Your task to perform on an android device: change notification settings in the gmail app Image 0: 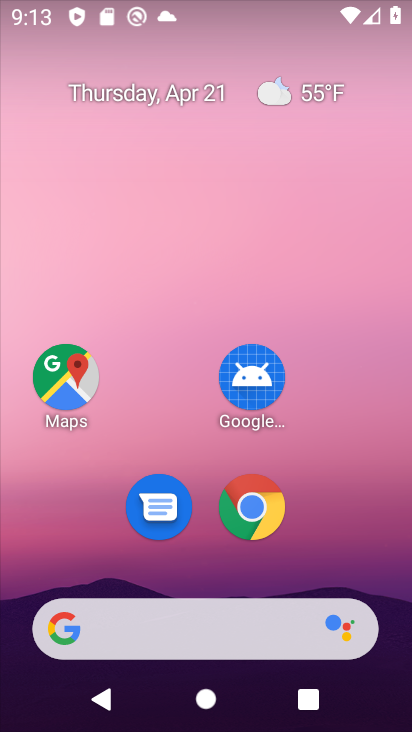
Step 0: drag from (353, 620) to (348, 211)
Your task to perform on an android device: change notification settings in the gmail app Image 1: 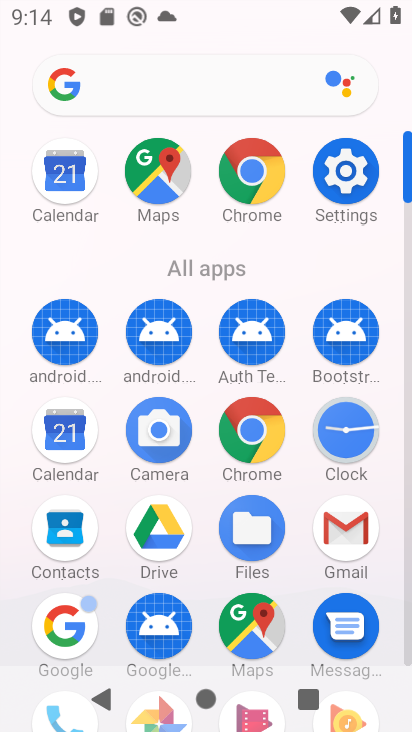
Step 1: click (340, 522)
Your task to perform on an android device: change notification settings in the gmail app Image 2: 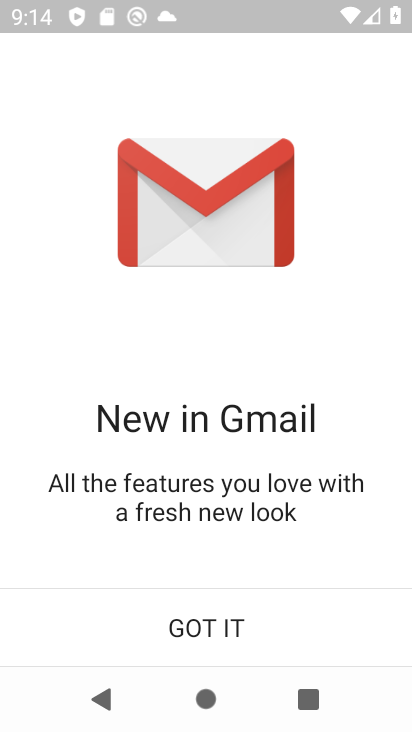
Step 2: click (211, 626)
Your task to perform on an android device: change notification settings in the gmail app Image 3: 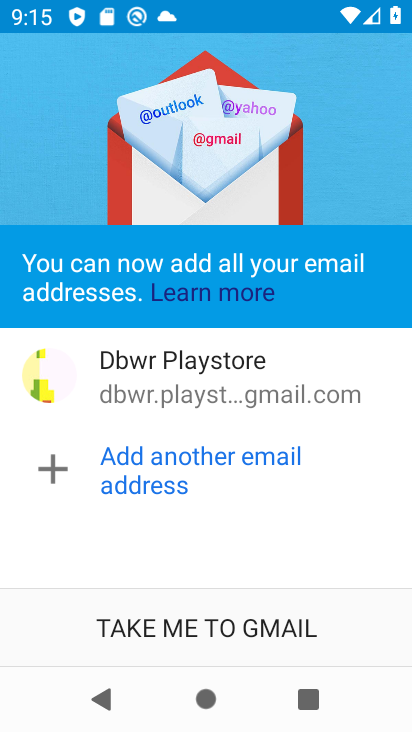
Step 3: click (195, 624)
Your task to perform on an android device: change notification settings in the gmail app Image 4: 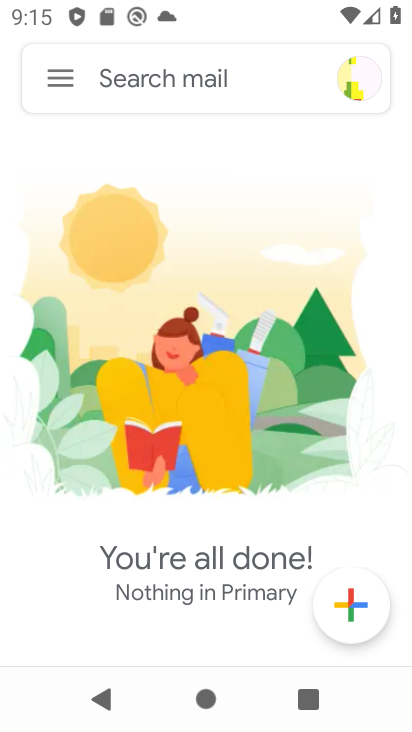
Step 4: click (66, 66)
Your task to perform on an android device: change notification settings in the gmail app Image 5: 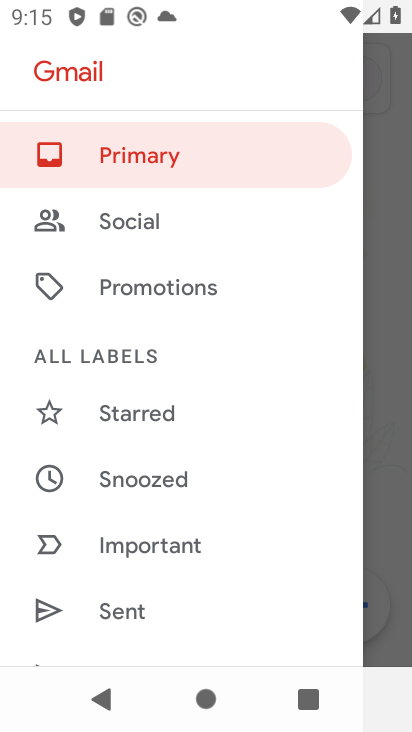
Step 5: drag from (145, 580) to (211, 128)
Your task to perform on an android device: change notification settings in the gmail app Image 6: 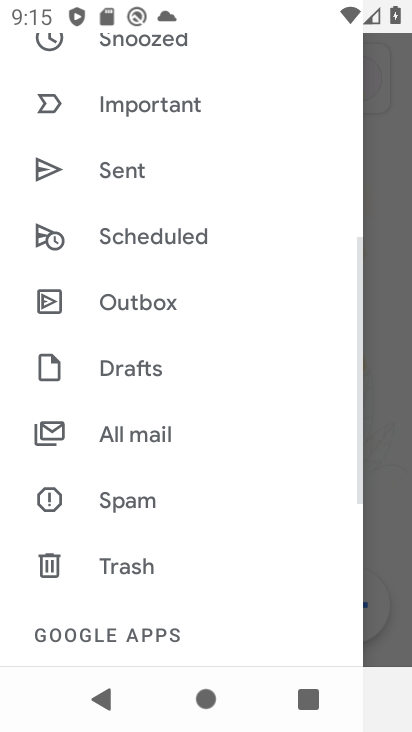
Step 6: drag from (131, 625) to (190, 185)
Your task to perform on an android device: change notification settings in the gmail app Image 7: 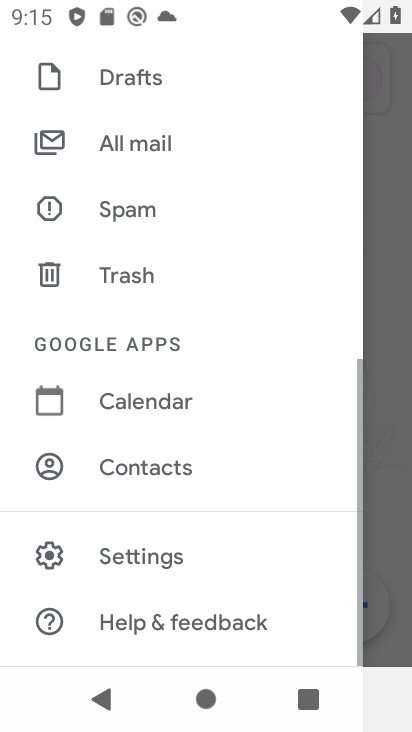
Step 7: click (116, 551)
Your task to perform on an android device: change notification settings in the gmail app Image 8: 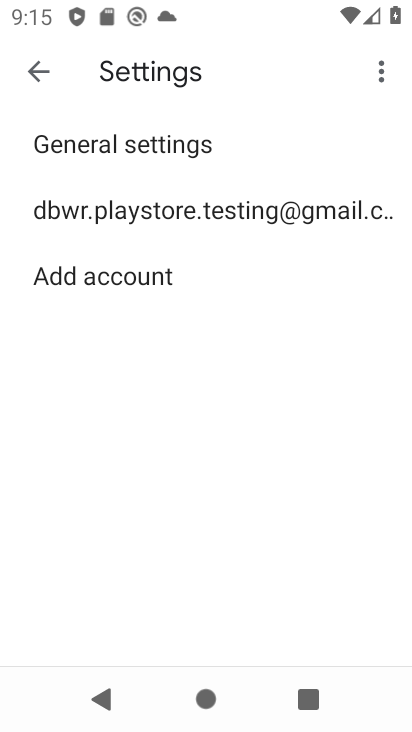
Step 8: click (235, 205)
Your task to perform on an android device: change notification settings in the gmail app Image 9: 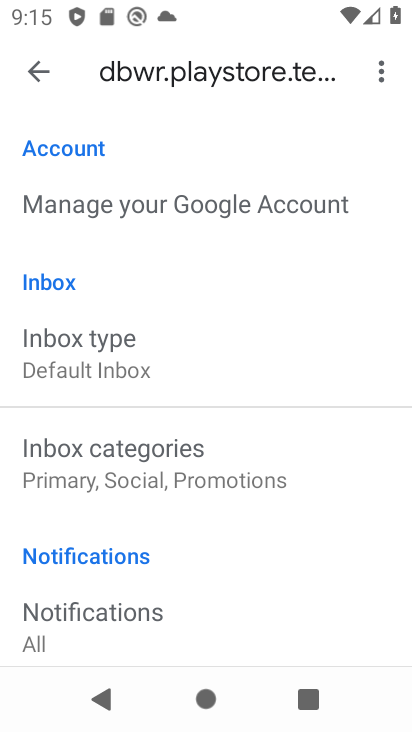
Step 9: drag from (174, 611) to (214, 407)
Your task to perform on an android device: change notification settings in the gmail app Image 10: 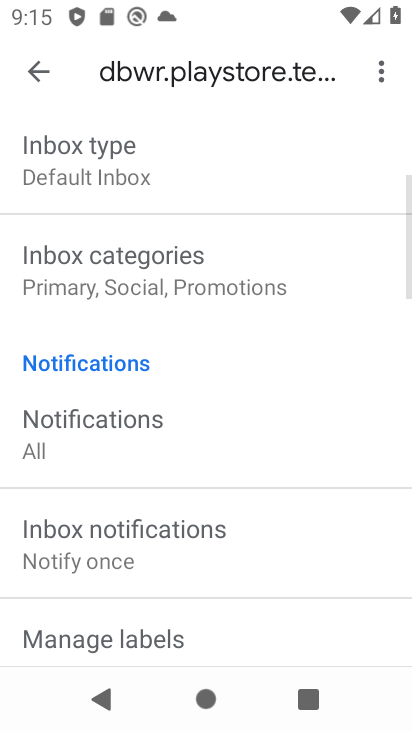
Step 10: click (149, 416)
Your task to perform on an android device: change notification settings in the gmail app Image 11: 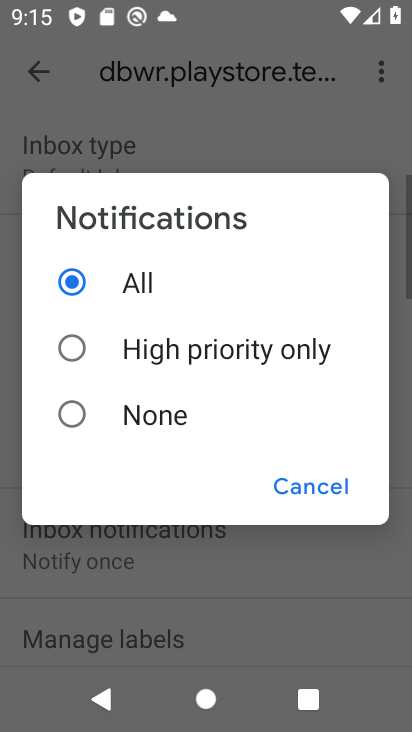
Step 11: click (156, 413)
Your task to perform on an android device: change notification settings in the gmail app Image 12: 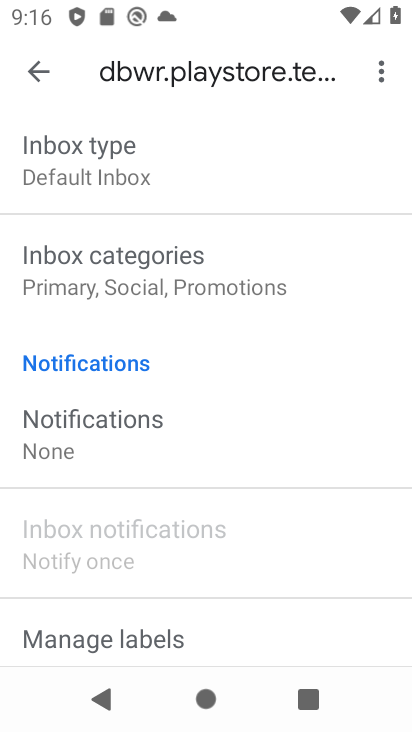
Step 12: task complete